Your task to perform on an android device: toggle wifi Image 0: 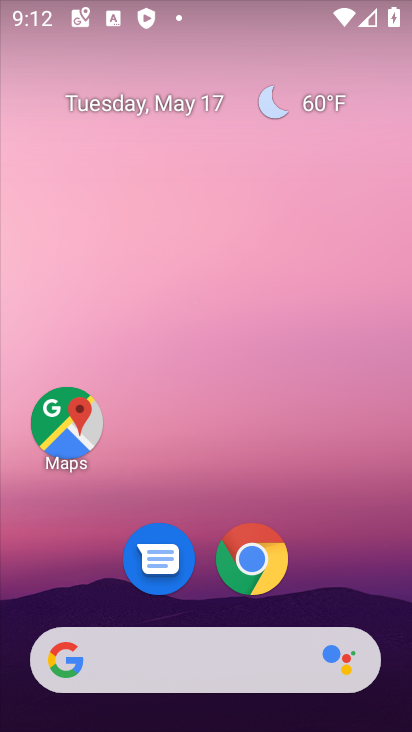
Step 0: drag from (210, 589) to (298, 89)
Your task to perform on an android device: toggle wifi Image 1: 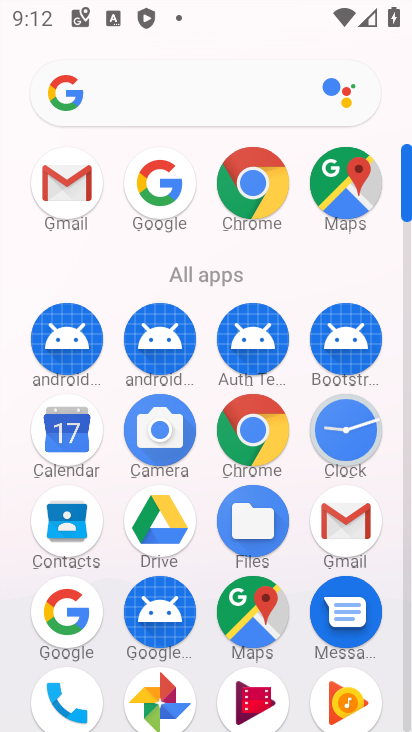
Step 1: drag from (243, 578) to (238, 243)
Your task to perform on an android device: toggle wifi Image 2: 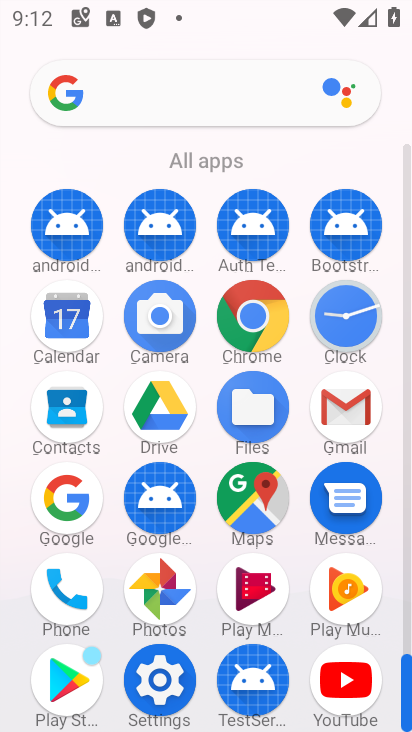
Step 2: click (152, 696)
Your task to perform on an android device: toggle wifi Image 3: 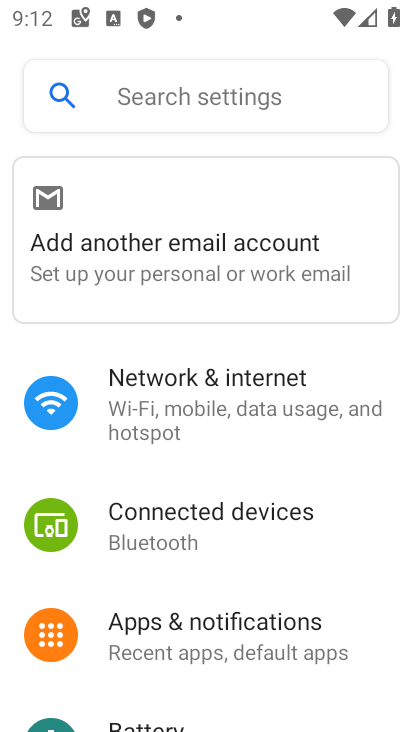
Step 3: click (166, 425)
Your task to perform on an android device: toggle wifi Image 4: 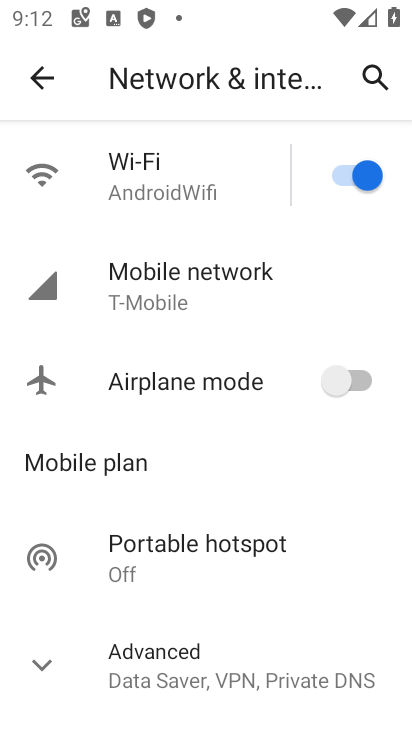
Step 4: click (187, 187)
Your task to perform on an android device: toggle wifi Image 5: 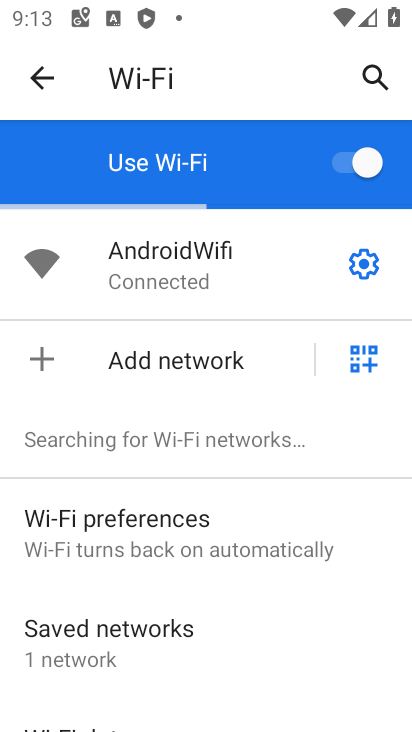
Step 5: task complete